Your task to perform on an android device: When is my next meeting? Image 0: 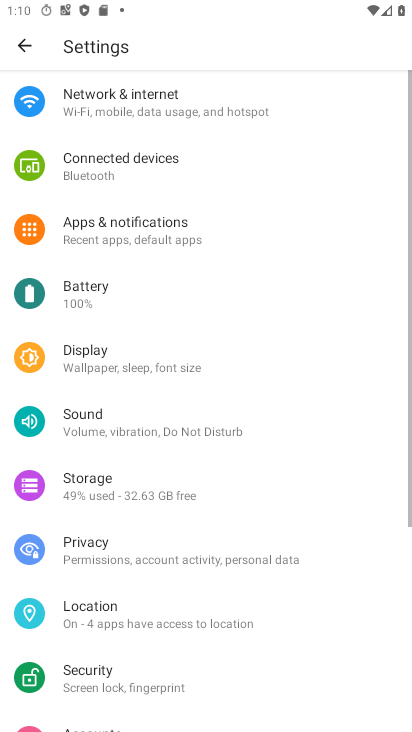
Step 0: press home button
Your task to perform on an android device: When is my next meeting? Image 1: 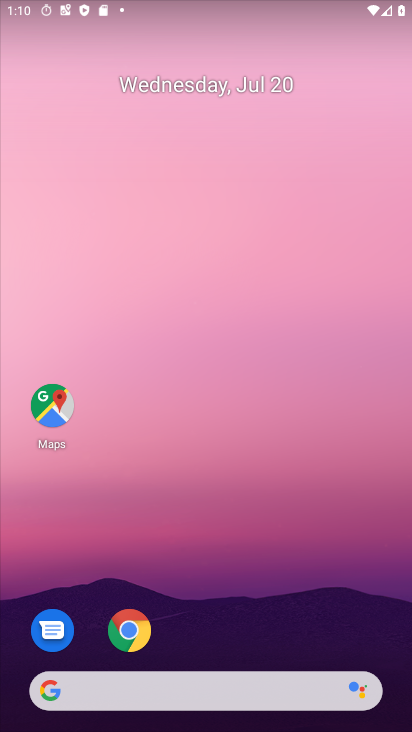
Step 1: drag from (237, 636) to (173, 206)
Your task to perform on an android device: When is my next meeting? Image 2: 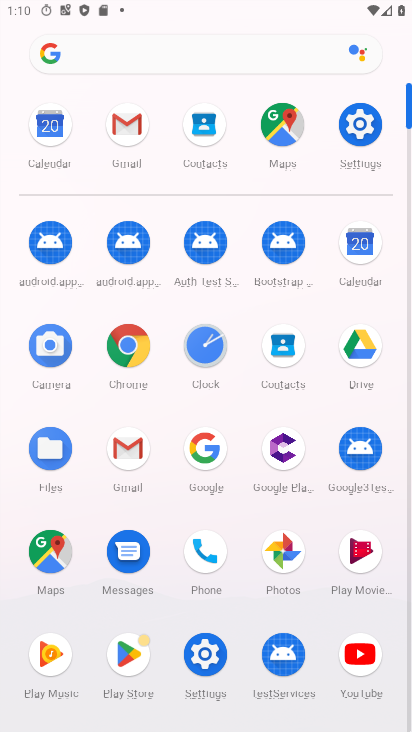
Step 2: click (36, 118)
Your task to perform on an android device: When is my next meeting? Image 3: 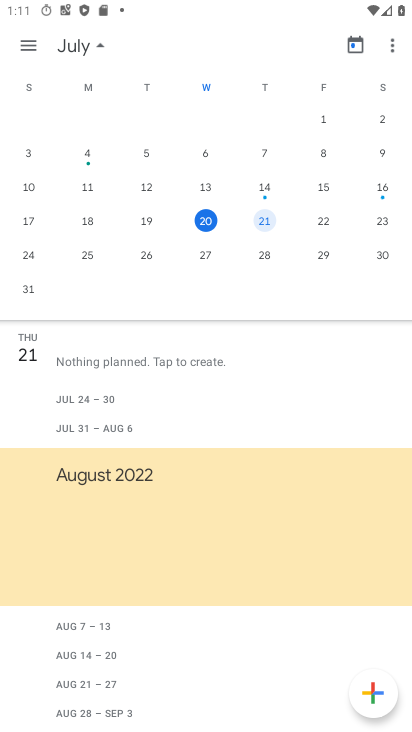
Step 3: click (210, 225)
Your task to perform on an android device: When is my next meeting? Image 4: 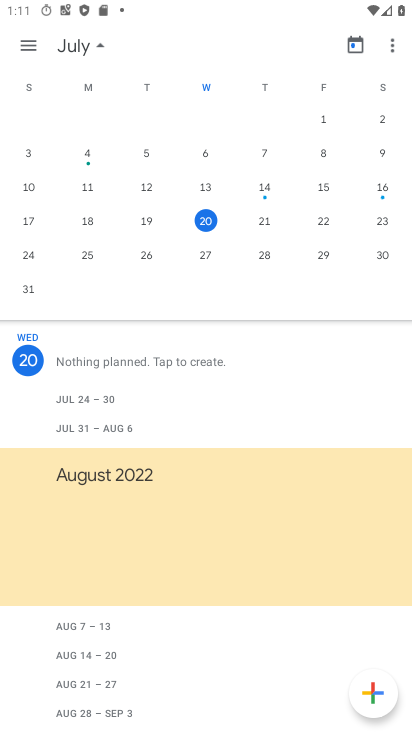
Step 4: task complete